Your task to perform on an android device: Add dell alienware to the cart on costco.com Image 0: 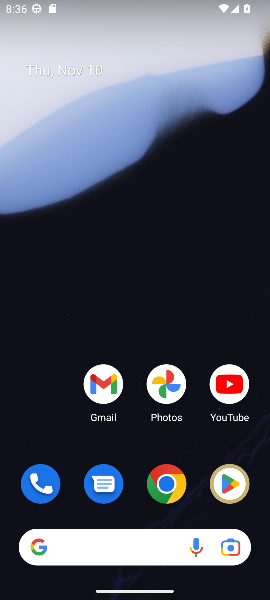
Step 0: click (176, 485)
Your task to perform on an android device: Add dell alienware to the cart on costco.com Image 1: 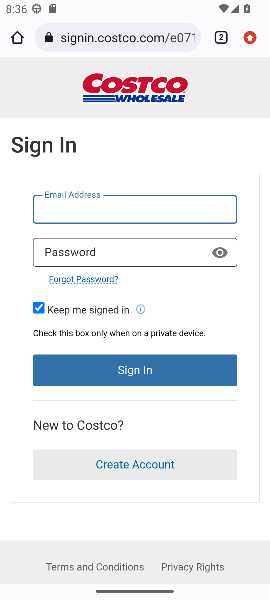
Step 1: press back button
Your task to perform on an android device: Add dell alienware to the cart on costco.com Image 2: 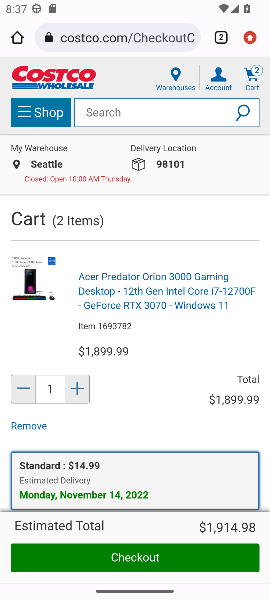
Step 2: click (130, 109)
Your task to perform on an android device: Add dell alienware to the cart on costco.com Image 3: 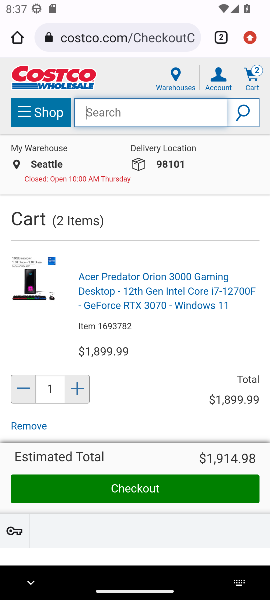
Step 3: type "dell alienware"
Your task to perform on an android device: Add dell alienware to the cart on costco.com Image 4: 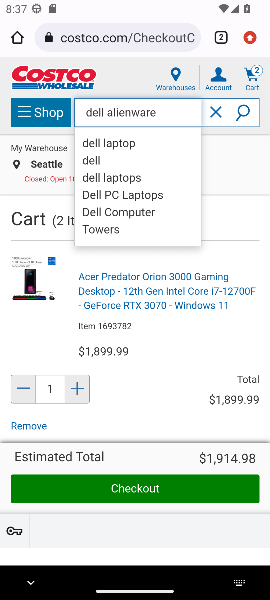
Step 4: click (247, 116)
Your task to perform on an android device: Add dell alienware to the cart on costco.com Image 5: 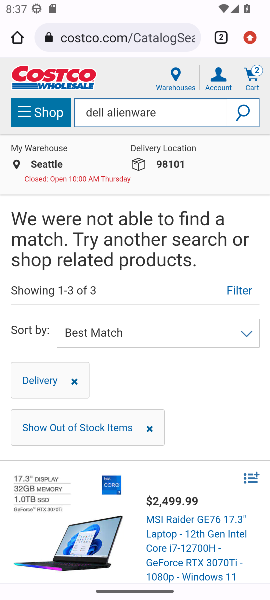
Step 5: task complete